Your task to perform on an android device: Clear all items from cart on bestbuy. Image 0: 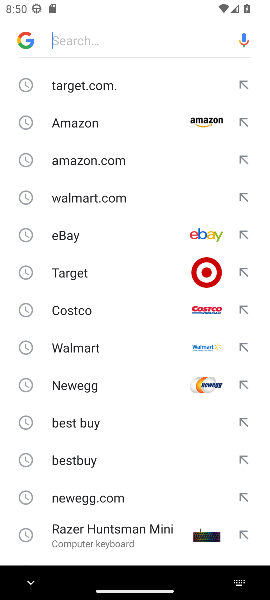
Step 0: type "bestbuy.com"
Your task to perform on an android device: Clear all items from cart on bestbuy. Image 1: 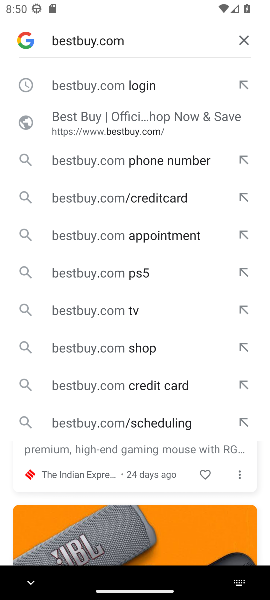
Step 1: click (90, 127)
Your task to perform on an android device: Clear all items from cart on bestbuy. Image 2: 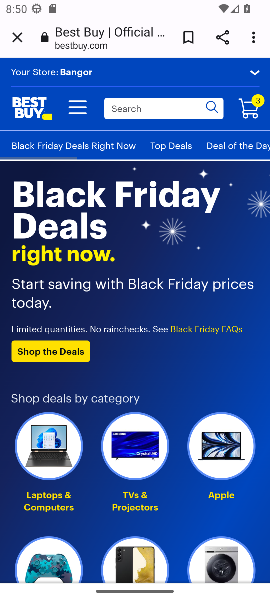
Step 2: click (254, 112)
Your task to perform on an android device: Clear all items from cart on bestbuy. Image 3: 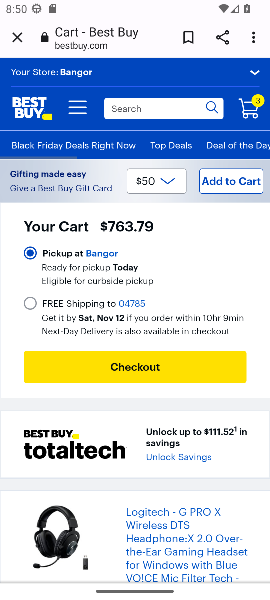
Step 3: drag from (83, 370) to (102, 189)
Your task to perform on an android device: Clear all items from cart on bestbuy. Image 4: 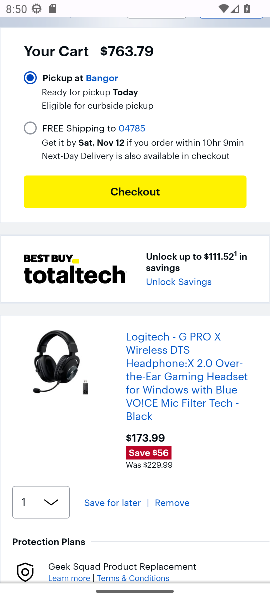
Step 4: click (172, 508)
Your task to perform on an android device: Clear all items from cart on bestbuy. Image 5: 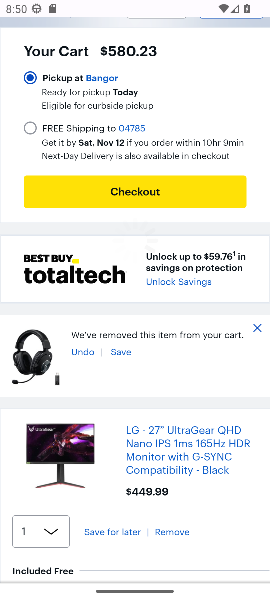
Step 5: drag from (152, 480) to (141, 242)
Your task to perform on an android device: Clear all items from cart on bestbuy. Image 6: 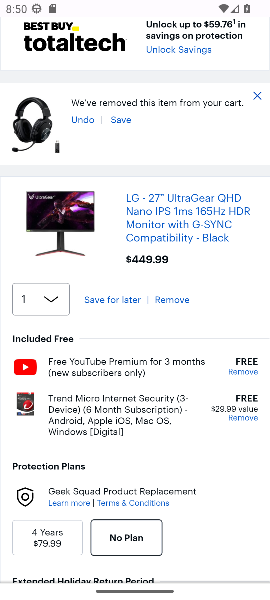
Step 6: click (171, 300)
Your task to perform on an android device: Clear all items from cart on bestbuy. Image 7: 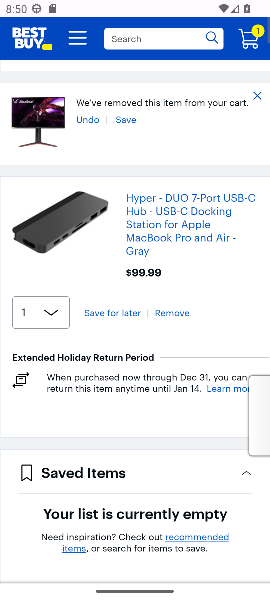
Step 7: click (169, 313)
Your task to perform on an android device: Clear all items from cart on bestbuy. Image 8: 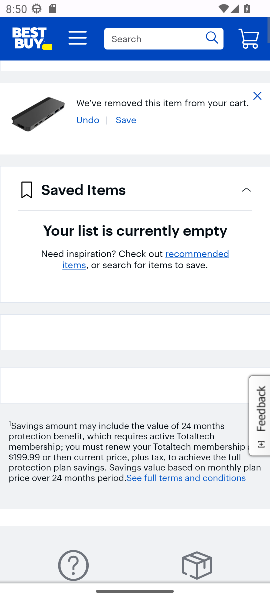
Step 8: task complete